Your task to perform on an android device: toggle show notifications on the lock screen Image 0: 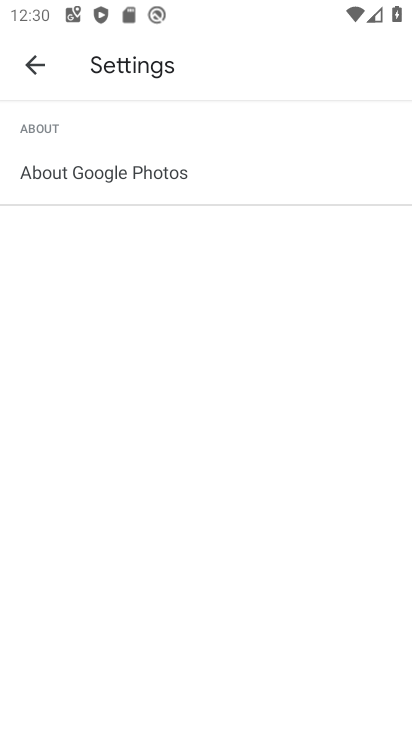
Step 0: press home button
Your task to perform on an android device: toggle show notifications on the lock screen Image 1: 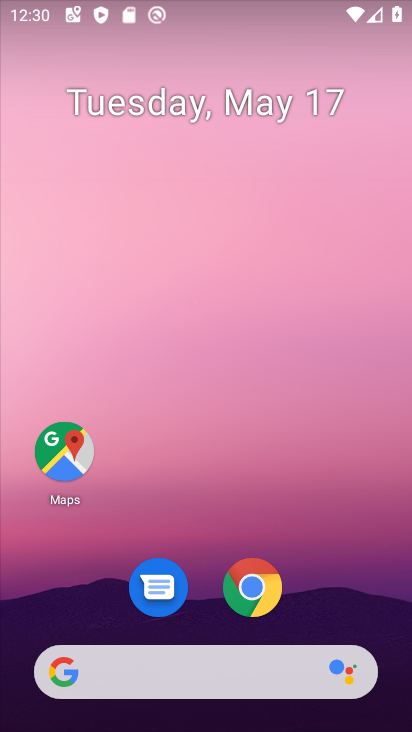
Step 1: drag from (171, 643) to (200, 2)
Your task to perform on an android device: toggle show notifications on the lock screen Image 2: 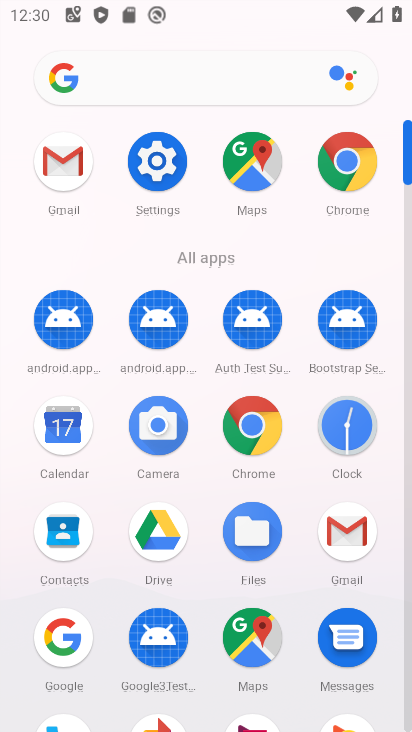
Step 2: click (164, 153)
Your task to perform on an android device: toggle show notifications on the lock screen Image 3: 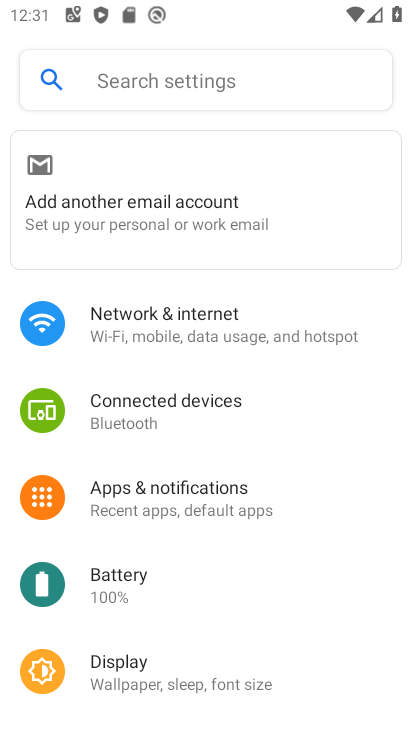
Step 3: click (152, 520)
Your task to perform on an android device: toggle show notifications on the lock screen Image 4: 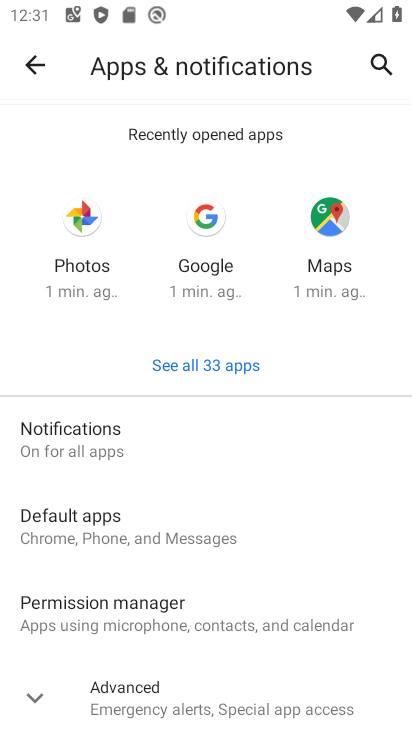
Step 4: click (144, 461)
Your task to perform on an android device: toggle show notifications on the lock screen Image 5: 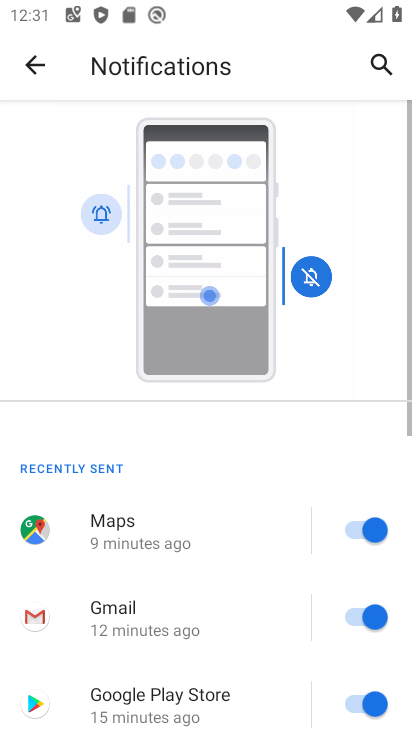
Step 5: drag from (150, 695) to (103, 119)
Your task to perform on an android device: toggle show notifications on the lock screen Image 6: 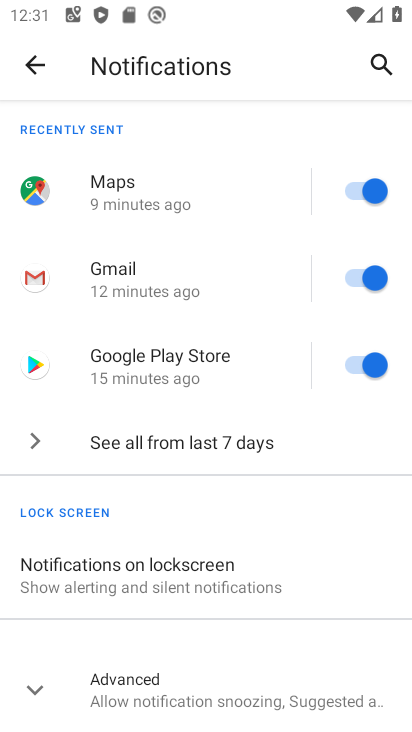
Step 6: click (178, 553)
Your task to perform on an android device: toggle show notifications on the lock screen Image 7: 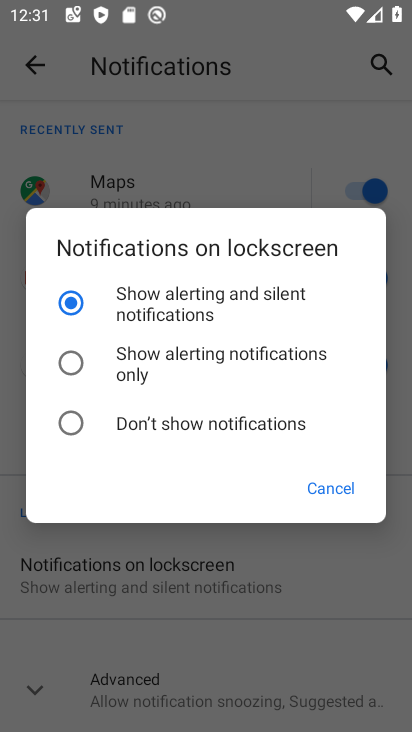
Step 7: click (148, 404)
Your task to perform on an android device: toggle show notifications on the lock screen Image 8: 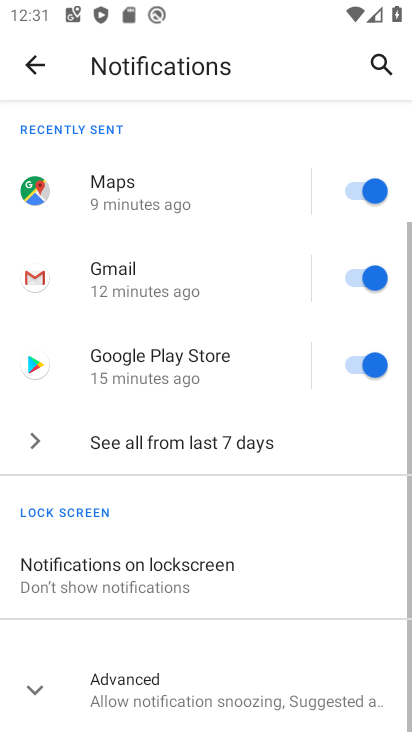
Step 8: task complete